Your task to perform on an android device: Go to display settings Image 0: 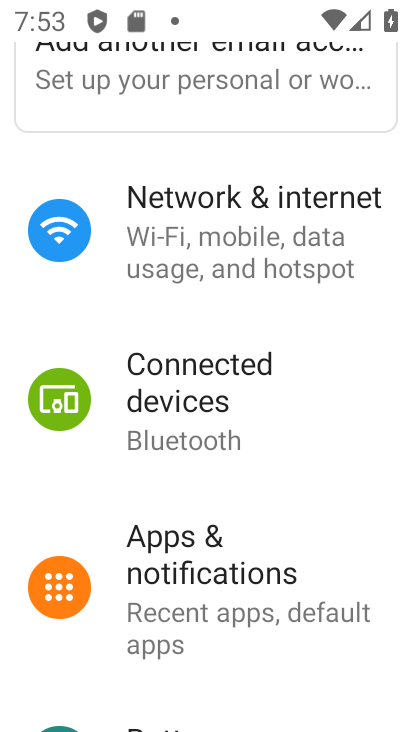
Step 0: drag from (358, 556) to (274, 69)
Your task to perform on an android device: Go to display settings Image 1: 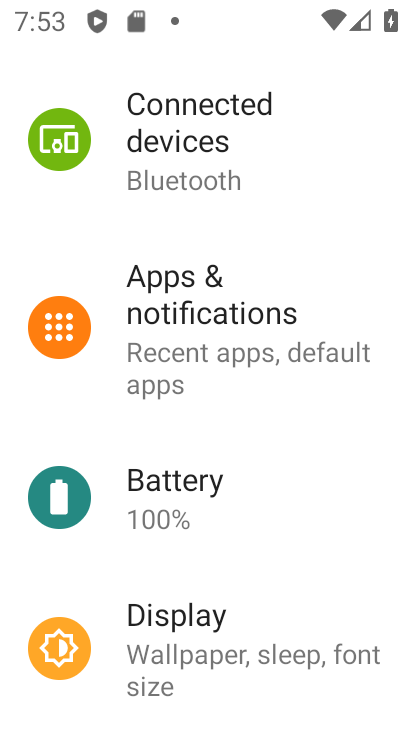
Step 1: click (311, 629)
Your task to perform on an android device: Go to display settings Image 2: 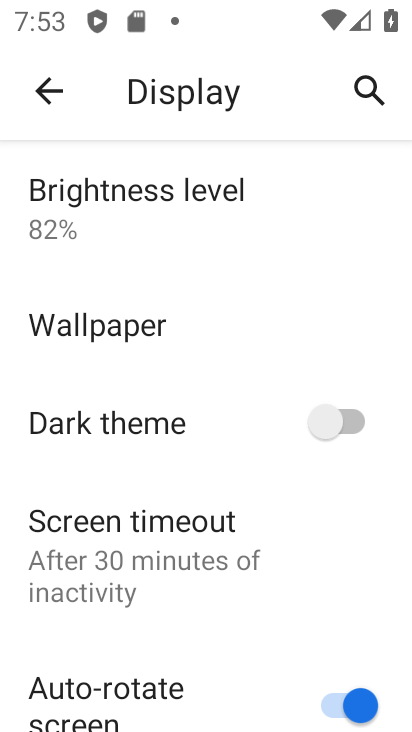
Step 2: task complete